Your task to perform on an android device: Search for Mexican restaurants on Maps Image 0: 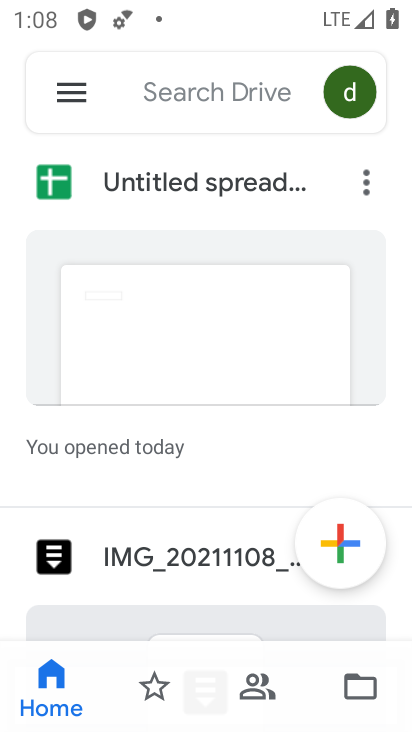
Step 0: press home button
Your task to perform on an android device: Search for Mexican restaurants on Maps Image 1: 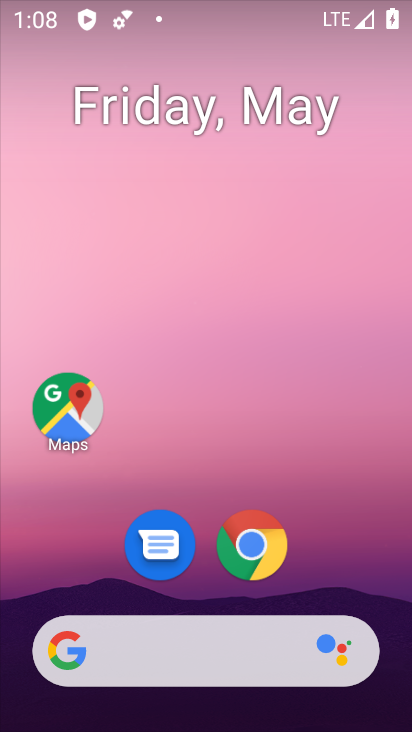
Step 1: click (72, 401)
Your task to perform on an android device: Search for Mexican restaurants on Maps Image 2: 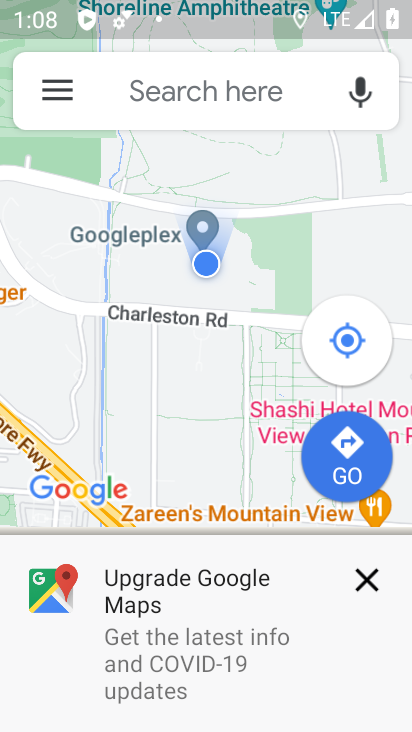
Step 2: click (203, 97)
Your task to perform on an android device: Search for Mexican restaurants on Maps Image 3: 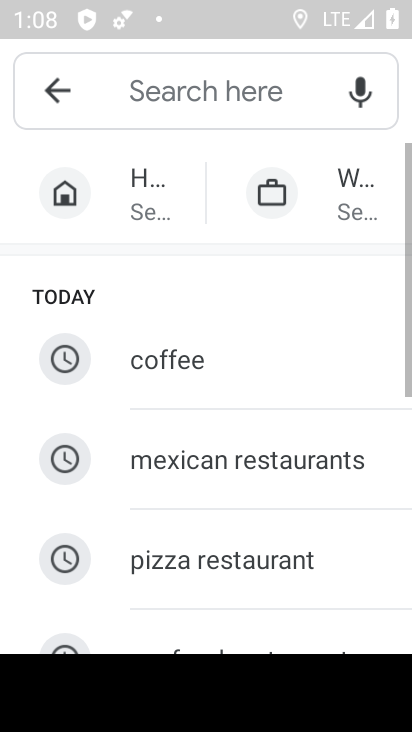
Step 3: click (247, 471)
Your task to perform on an android device: Search for Mexican restaurants on Maps Image 4: 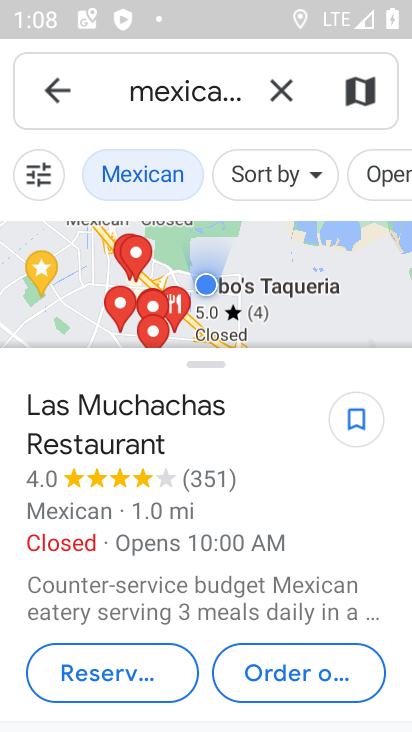
Step 4: task complete